Your task to perform on an android device: Open Wikipedia Image 0: 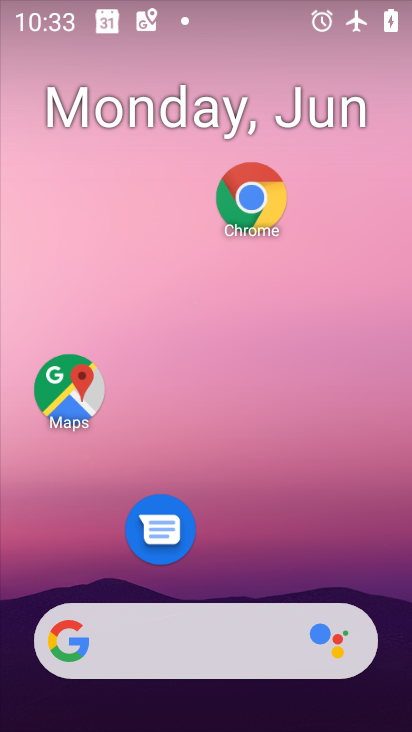
Step 0: click (262, 208)
Your task to perform on an android device: Open Wikipedia Image 1: 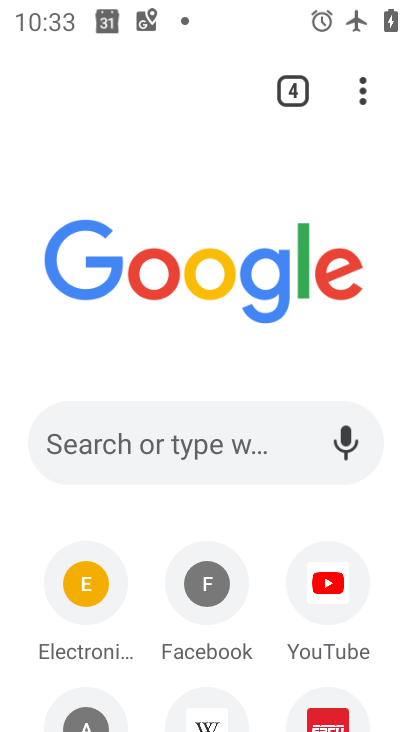
Step 1: drag from (171, 656) to (181, 336)
Your task to perform on an android device: Open Wikipedia Image 2: 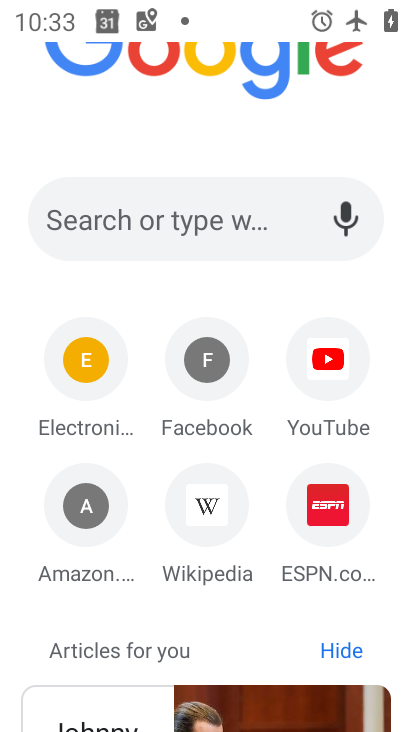
Step 2: click (197, 516)
Your task to perform on an android device: Open Wikipedia Image 3: 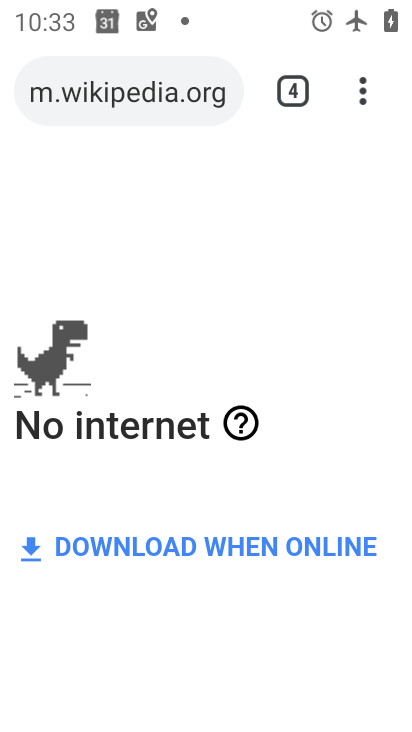
Step 3: task complete